Your task to perform on an android device: turn on data saver in the chrome app Image 0: 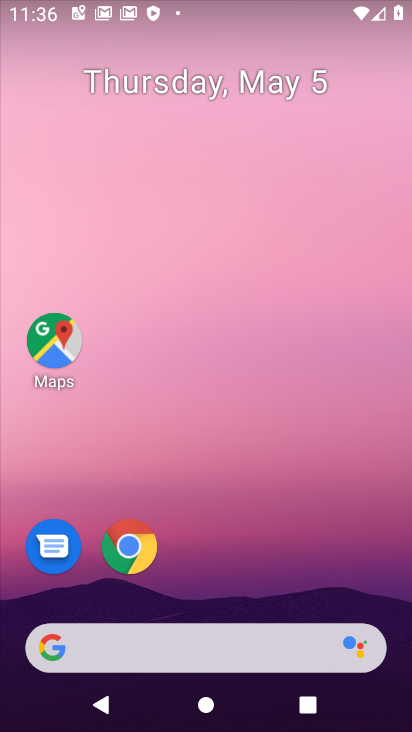
Step 0: click (131, 549)
Your task to perform on an android device: turn on data saver in the chrome app Image 1: 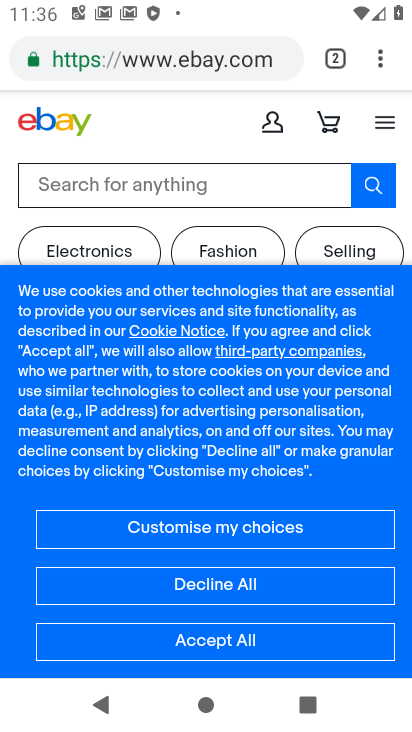
Step 1: click (381, 64)
Your task to perform on an android device: turn on data saver in the chrome app Image 2: 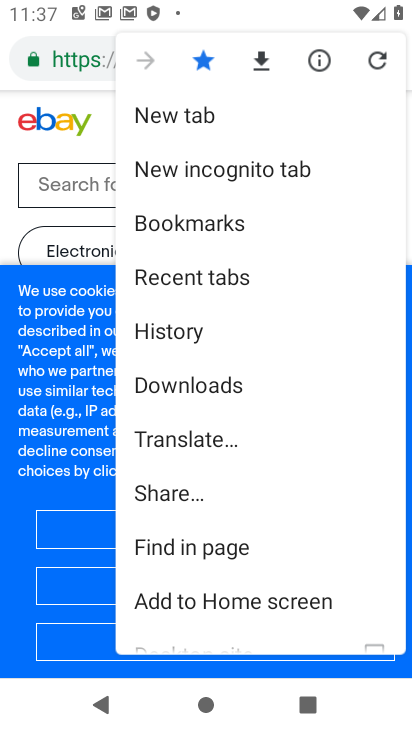
Step 2: drag from (231, 555) to (227, 238)
Your task to perform on an android device: turn on data saver in the chrome app Image 3: 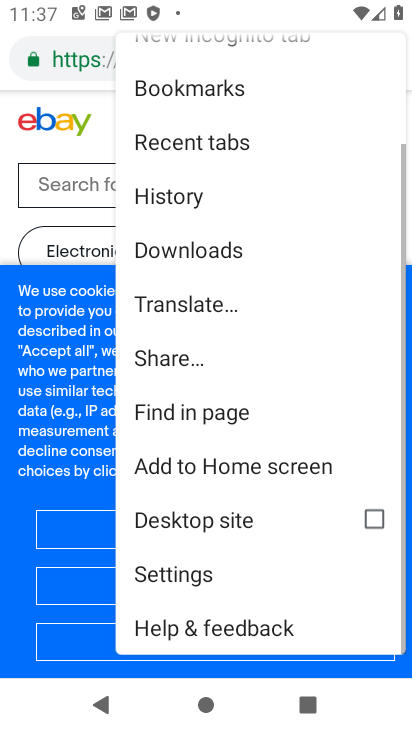
Step 3: click (182, 572)
Your task to perform on an android device: turn on data saver in the chrome app Image 4: 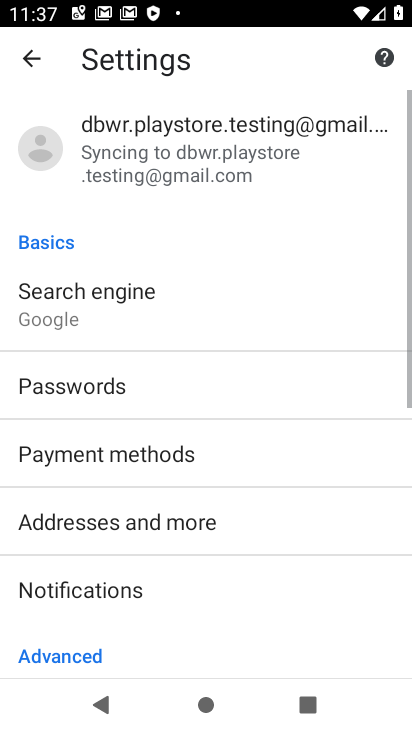
Step 4: drag from (204, 616) to (217, 216)
Your task to perform on an android device: turn on data saver in the chrome app Image 5: 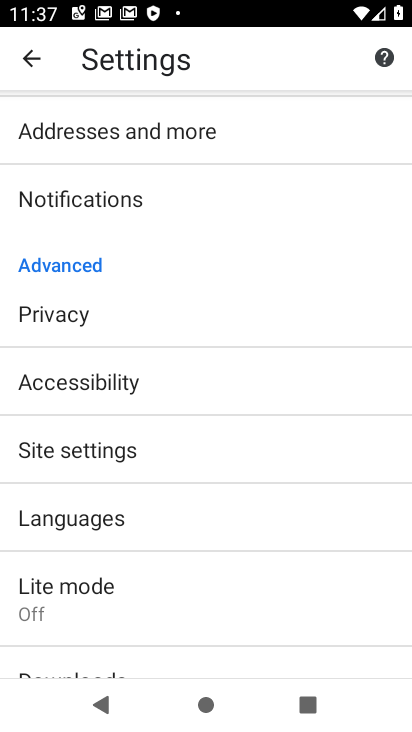
Step 5: click (166, 610)
Your task to perform on an android device: turn on data saver in the chrome app Image 6: 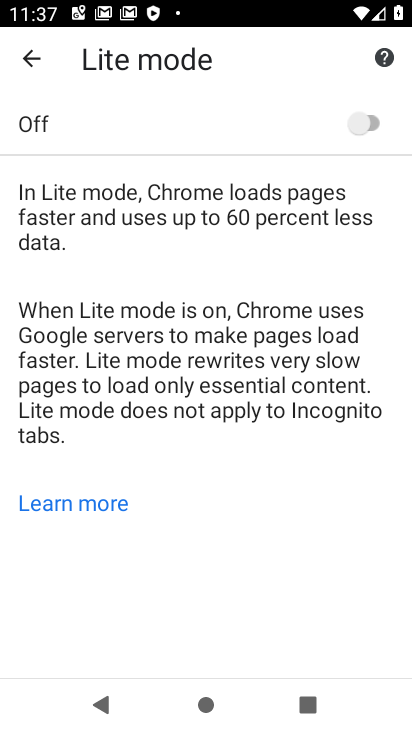
Step 6: click (373, 118)
Your task to perform on an android device: turn on data saver in the chrome app Image 7: 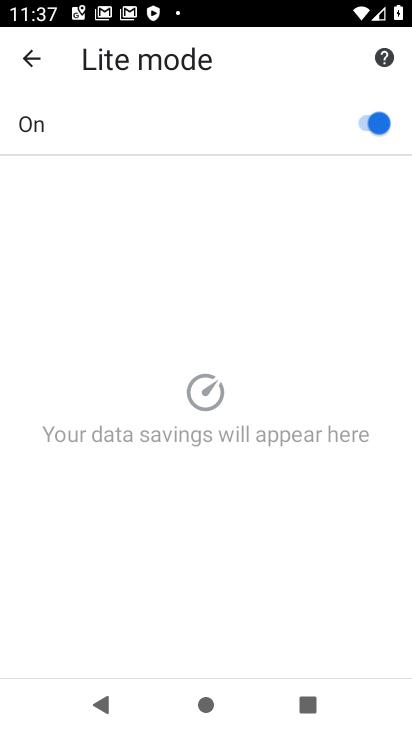
Step 7: task complete